Your task to perform on an android device: Open Chrome and go to settings Image 0: 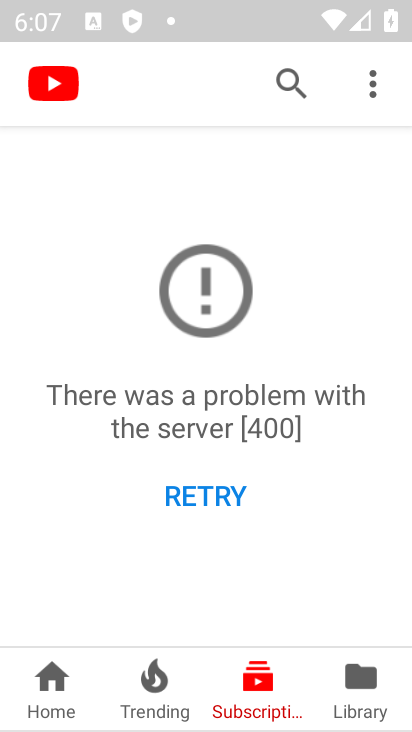
Step 0: press home button
Your task to perform on an android device: Open Chrome and go to settings Image 1: 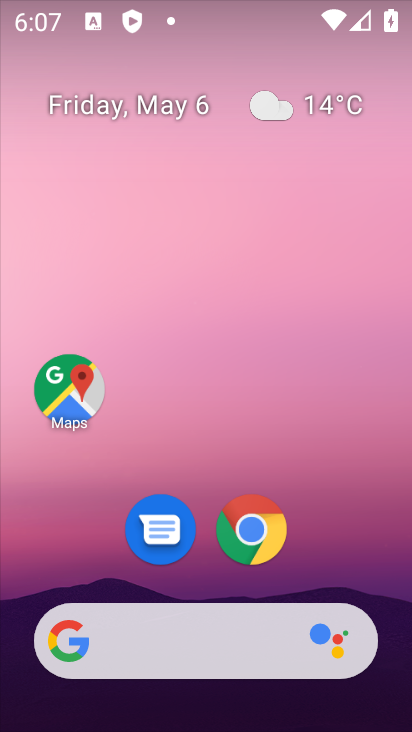
Step 1: click (242, 532)
Your task to perform on an android device: Open Chrome and go to settings Image 2: 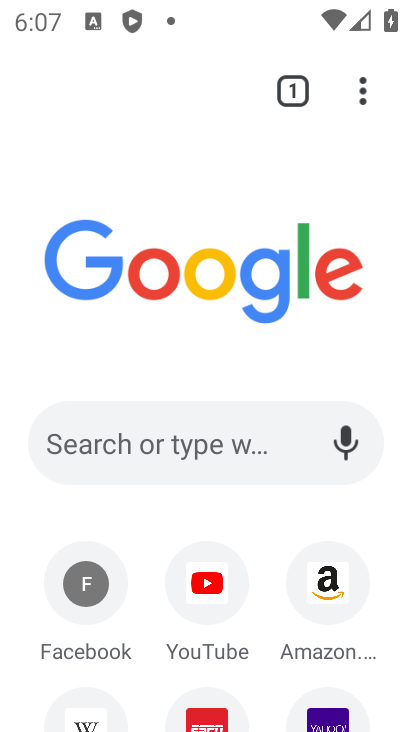
Step 2: click (360, 91)
Your task to perform on an android device: Open Chrome and go to settings Image 3: 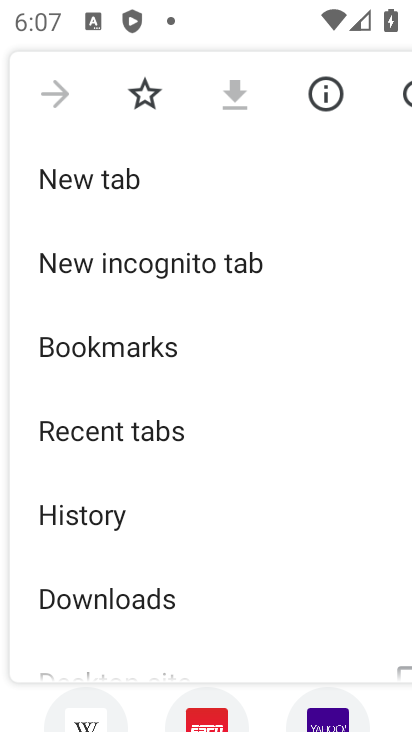
Step 3: drag from (228, 572) to (192, 57)
Your task to perform on an android device: Open Chrome and go to settings Image 4: 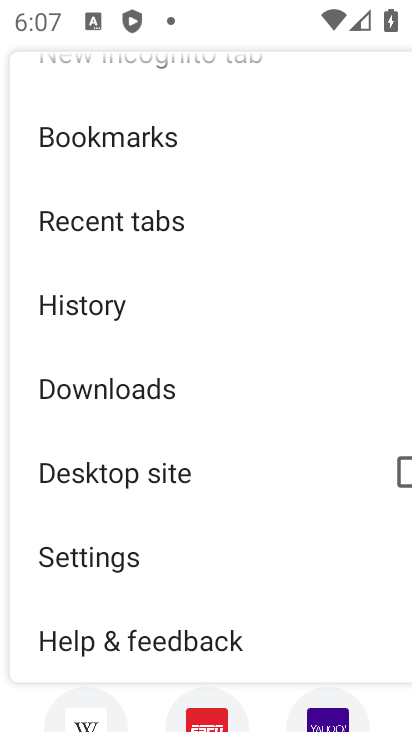
Step 4: drag from (200, 506) to (210, 201)
Your task to perform on an android device: Open Chrome and go to settings Image 5: 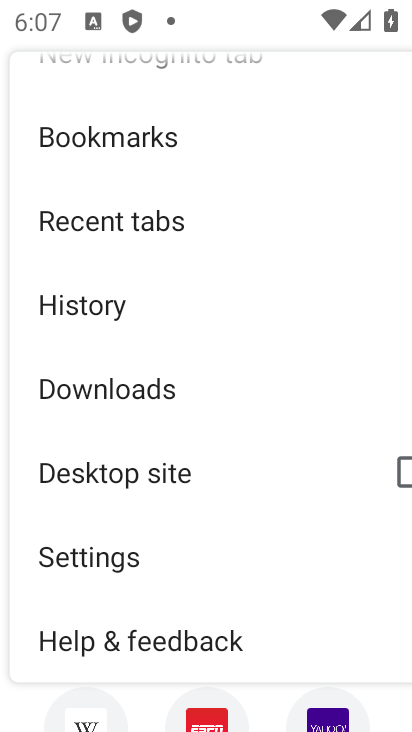
Step 5: click (162, 555)
Your task to perform on an android device: Open Chrome and go to settings Image 6: 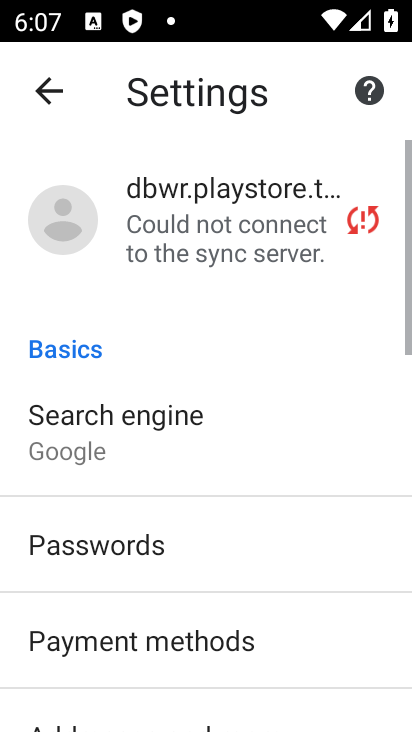
Step 6: task complete